Your task to perform on an android device: toggle wifi Image 0: 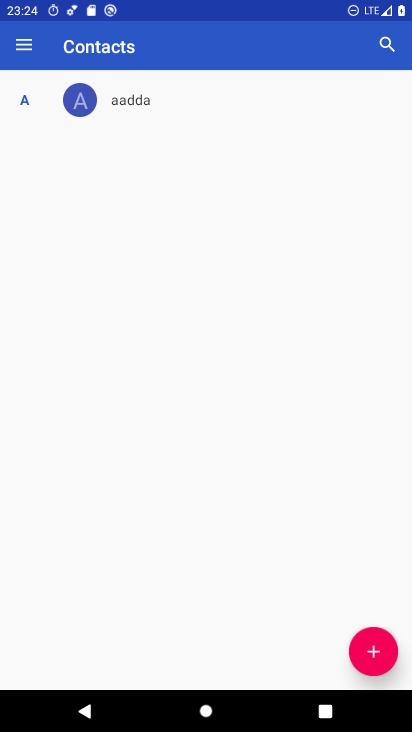
Step 0: press home button
Your task to perform on an android device: toggle wifi Image 1: 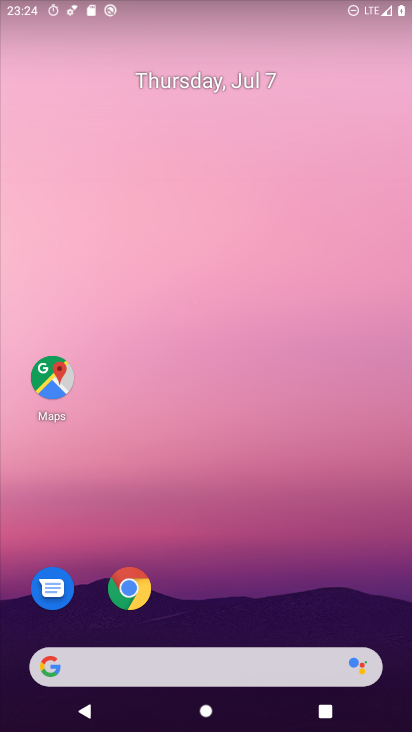
Step 1: drag from (304, 602) to (294, 85)
Your task to perform on an android device: toggle wifi Image 2: 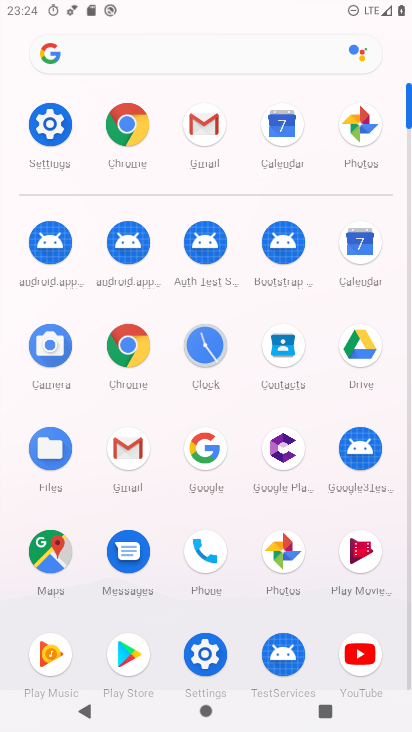
Step 2: click (48, 121)
Your task to perform on an android device: toggle wifi Image 3: 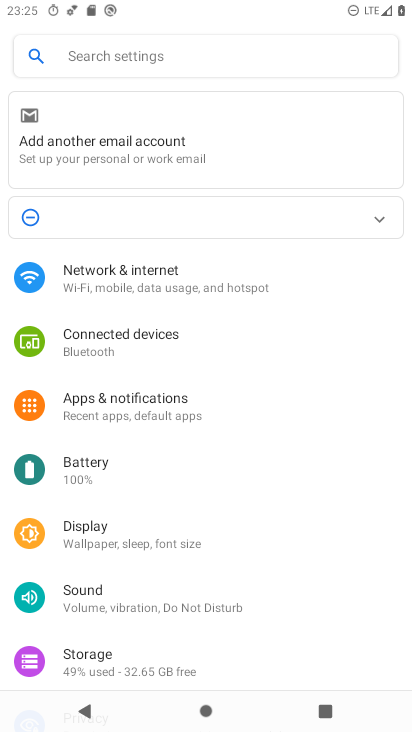
Step 3: click (145, 285)
Your task to perform on an android device: toggle wifi Image 4: 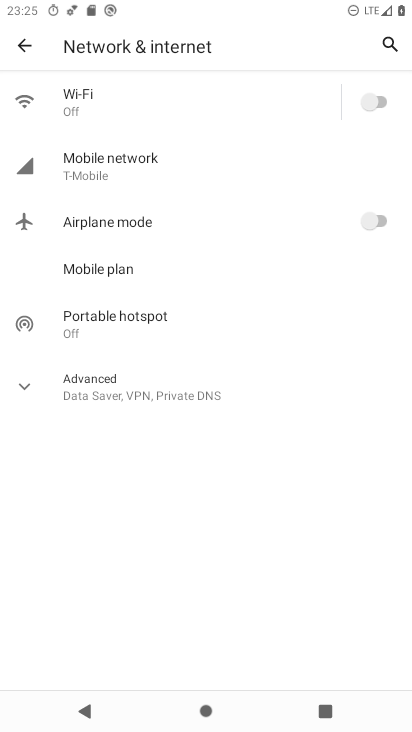
Step 4: click (379, 96)
Your task to perform on an android device: toggle wifi Image 5: 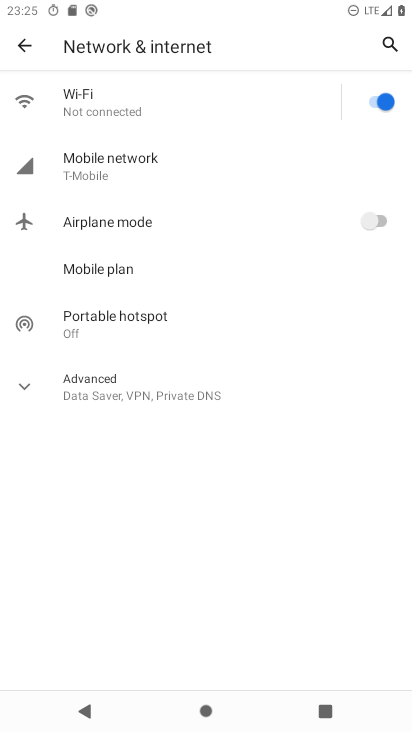
Step 5: task complete